Your task to perform on an android device: Open the web browser Image 0: 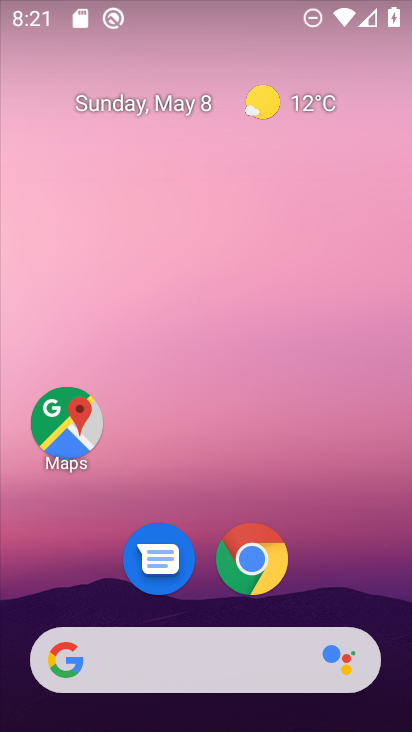
Step 0: click (249, 571)
Your task to perform on an android device: Open the web browser Image 1: 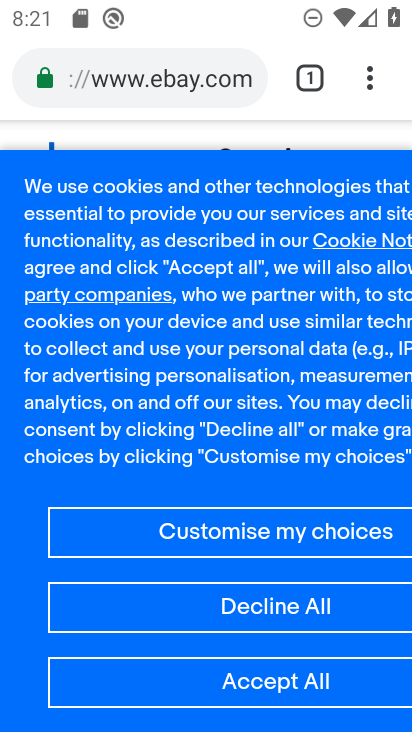
Step 1: task complete